Your task to perform on an android device: toggle notifications settings in the gmail app Image 0: 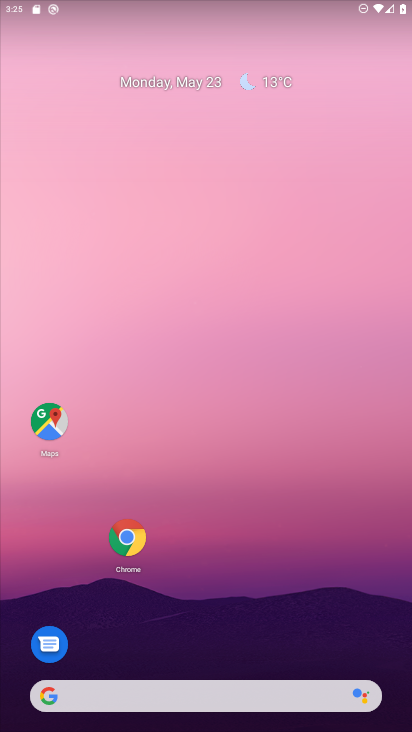
Step 0: drag from (290, 543) to (188, 105)
Your task to perform on an android device: toggle notifications settings in the gmail app Image 1: 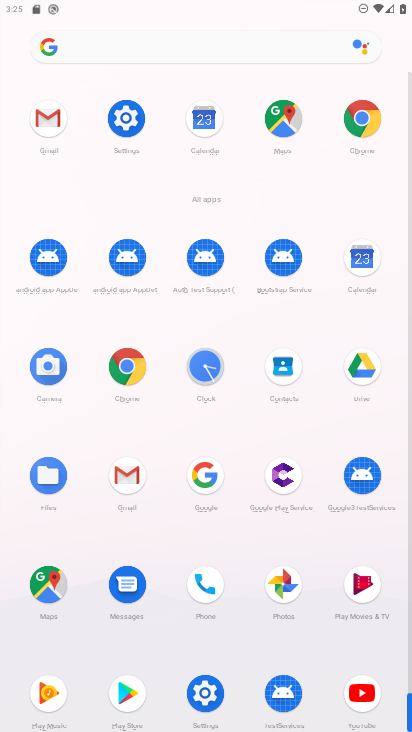
Step 1: click (37, 116)
Your task to perform on an android device: toggle notifications settings in the gmail app Image 2: 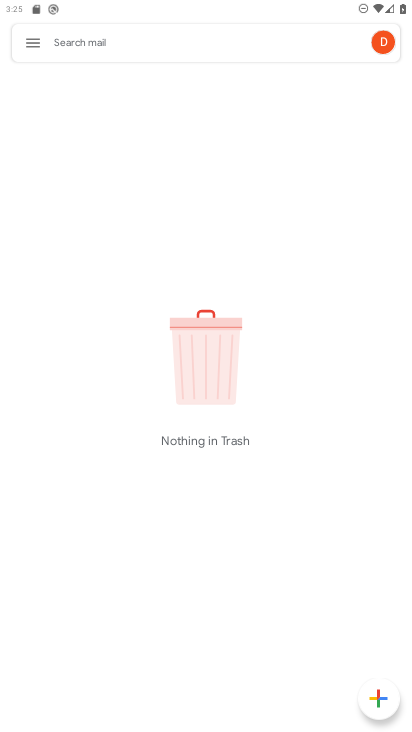
Step 2: click (33, 41)
Your task to perform on an android device: toggle notifications settings in the gmail app Image 3: 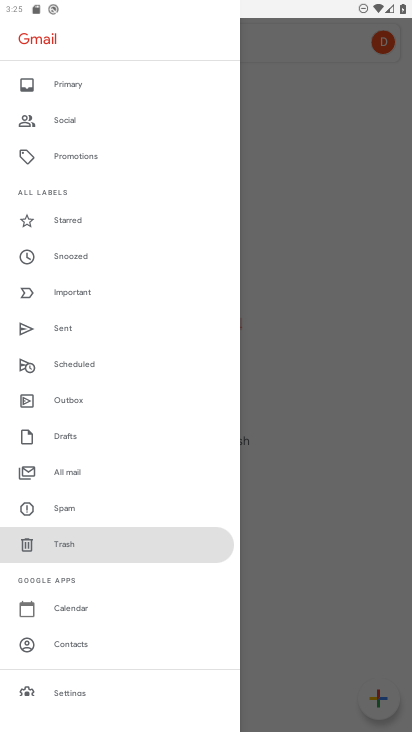
Step 3: click (81, 684)
Your task to perform on an android device: toggle notifications settings in the gmail app Image 4: 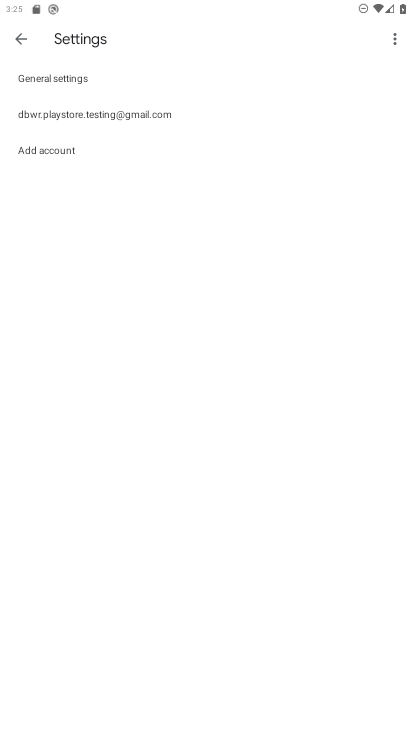
Step 4: click (162, 110)
Your task to perform on an android device: toggle notifications settings in the gmail app Image 5: 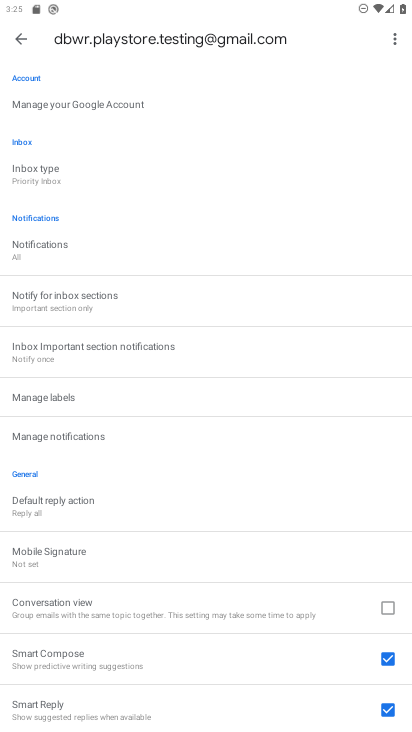
Step 5: click (81, 440)
Your task to perform on an android device: toggle notifications settings in the gmail app Image 6: 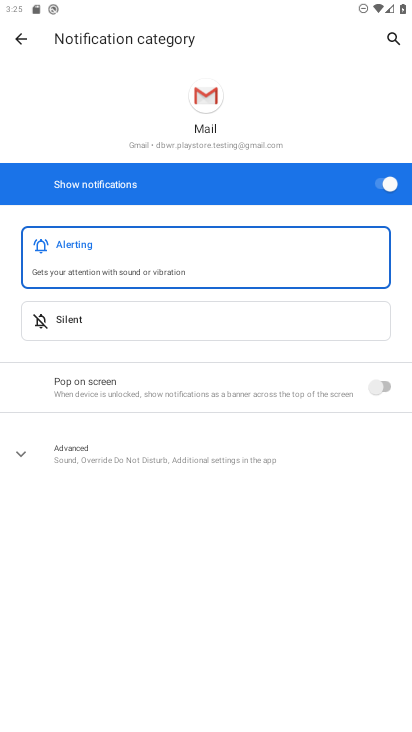
Step 6: click (371, 181)
Your task to perform on an android device: toggle notifications settings in the gmail app Image 7: 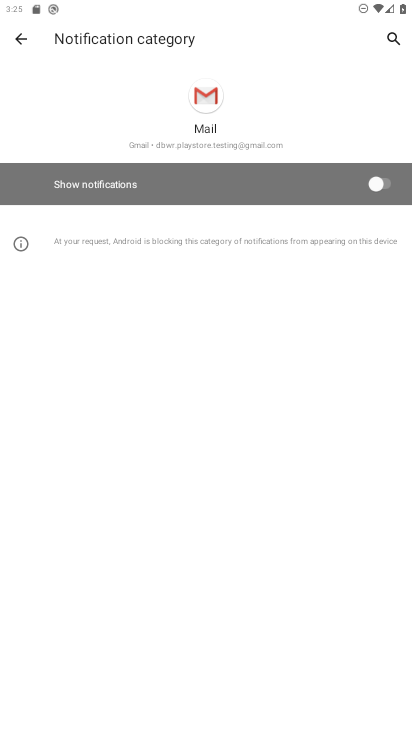
Step 7: task complete